Your task to perform on an android device: turn notification dots on Image 0: 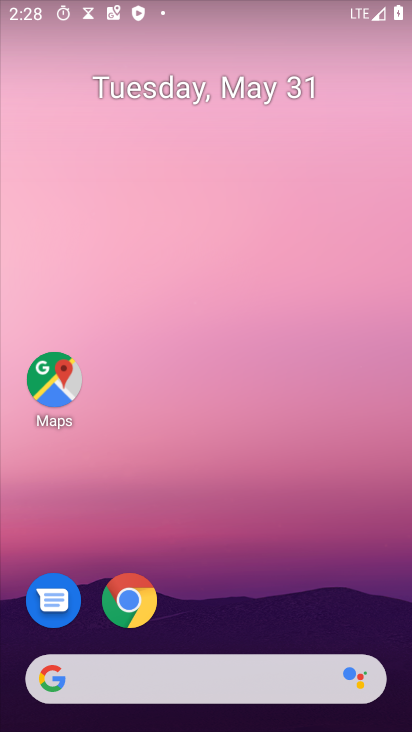
Step 0: drag from (223, 639) to (239, 5)
Your task to perform on an android device: turn notification dots on Image 1: 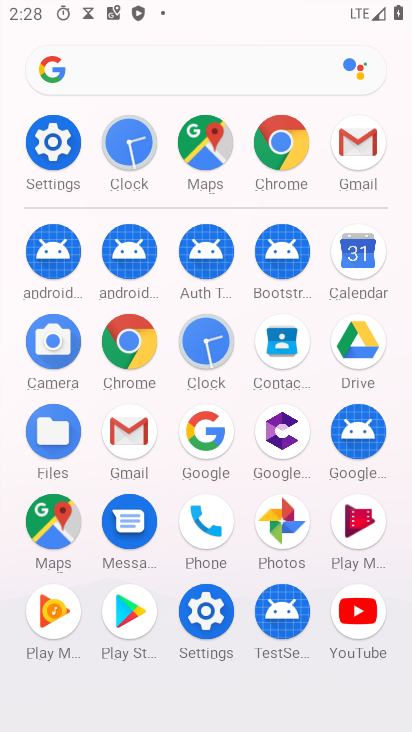
Step 1: click (202, 605)
Your task to perform on an android device: turn notification dots on Image 2: 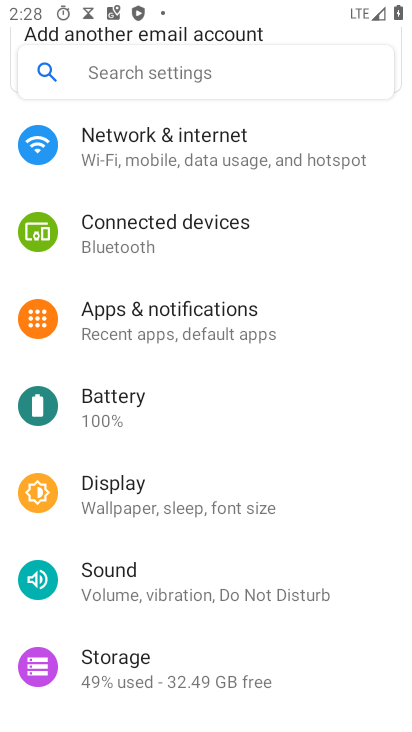
Step 2: click (271, 315)
Your task to perform on an android device: turn notification dots on Image 3: 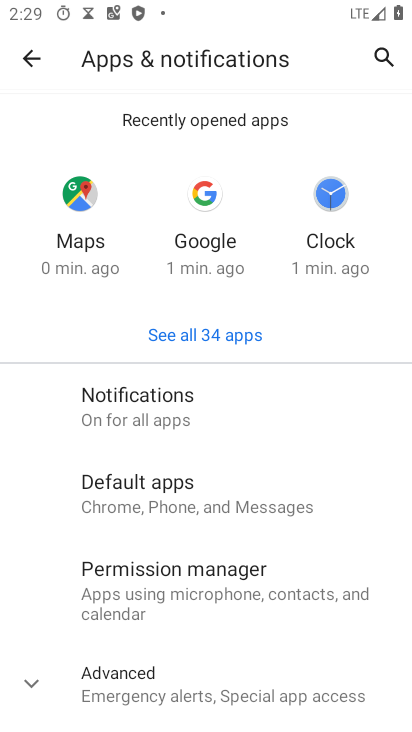
Step 3: click (209, 408)
Your task to perform on an android device: turn notification dots on Image 4: 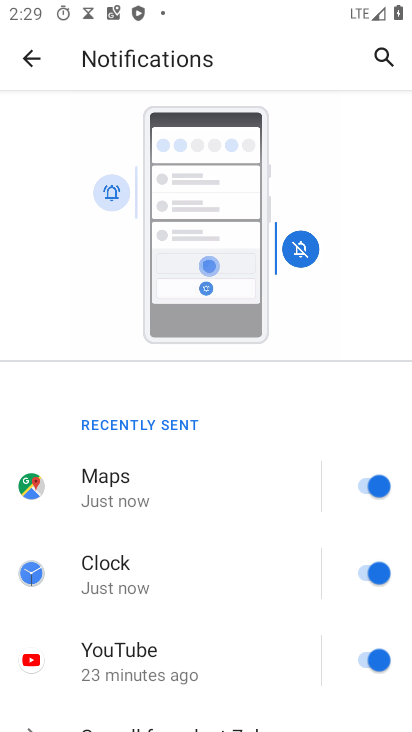
Step 4: drag from (242, 667) to (254, 105)
Your task to perform on an android device: turn notification dots on Image 5: 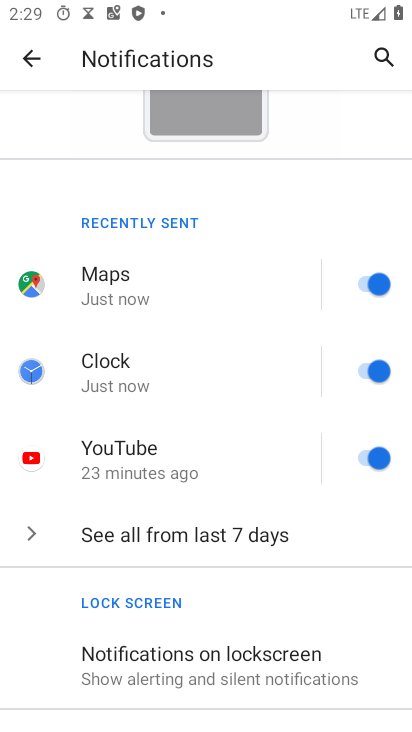
Step 5: drag from (248, 646) to (259, 149)
Your task to perform on an android device: turn notification dots on Image 6: 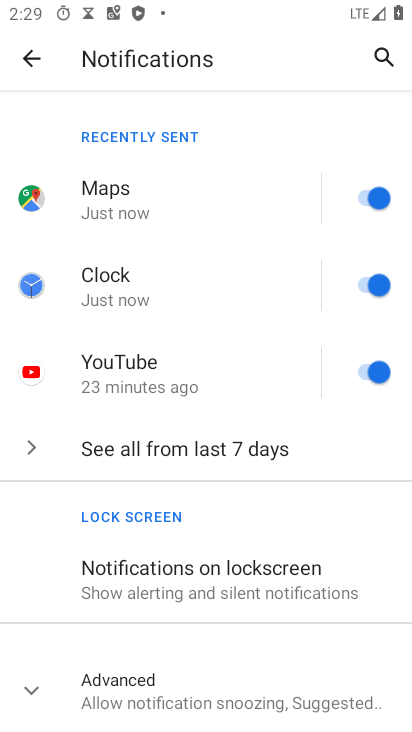
Step 6: click (32, 685)
Your task to perform on an android device: turn notification dots on Image 7: 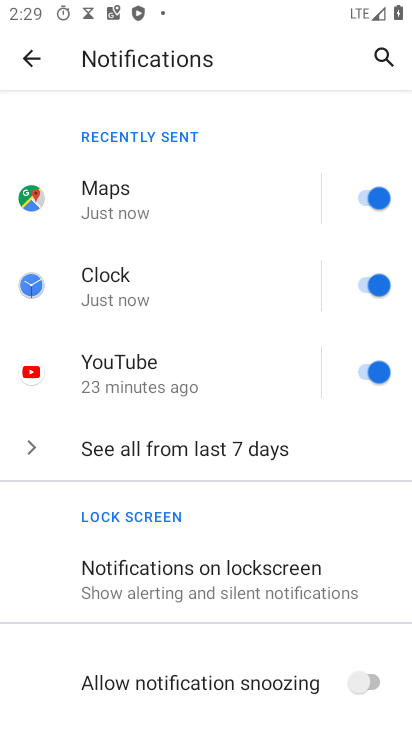
Step 7: drag from (237, 660) to (229, 143)
Your task to perform on an android device: turn notification dots on Image 8: 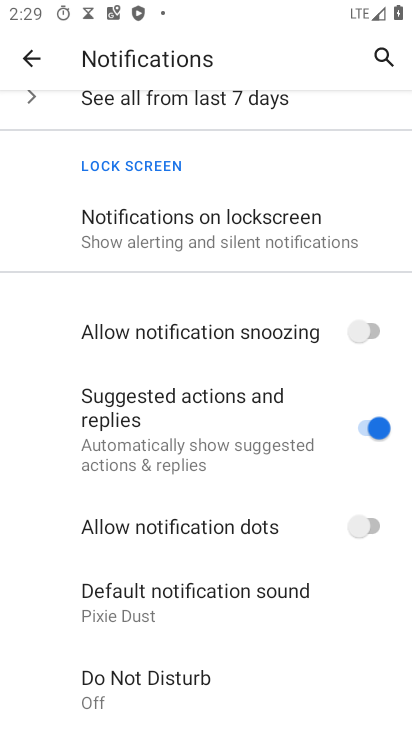
Step 8: click (373, 523)
Your task to perform on an android device: turn notification dots on Image 9: 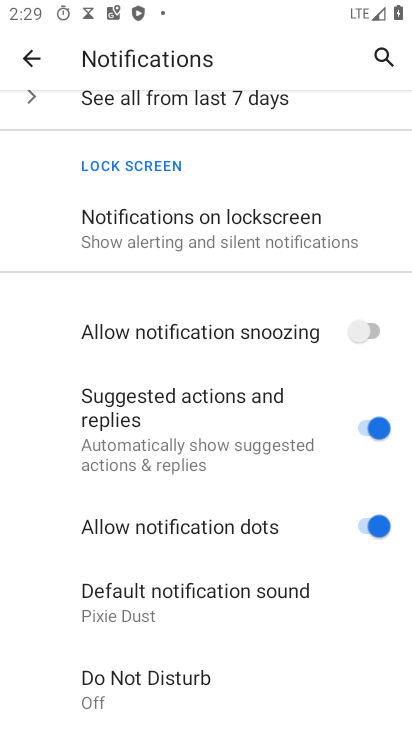
Step 9: task complete